Your task to perform on an android device: change the clock style Image 0: 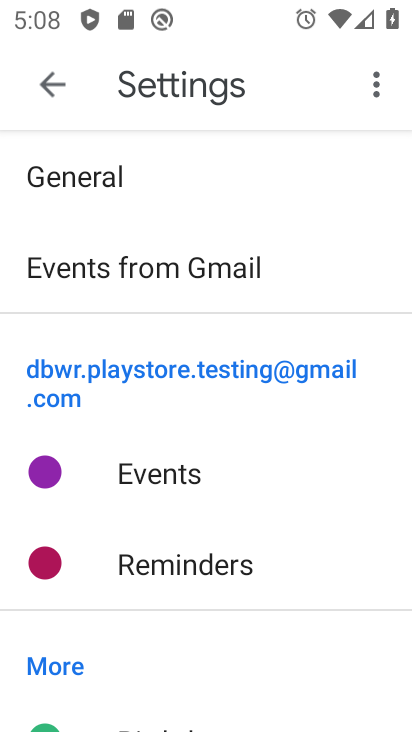
Step 0: press back button
Your task to perform on an android device: change the clock style Image 1: 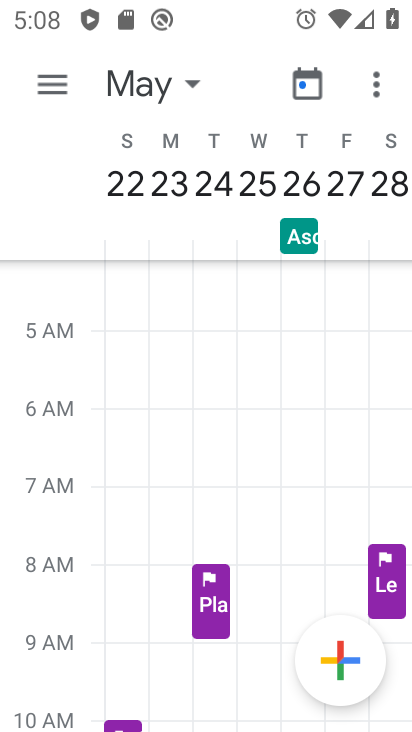
Step 1: press back button
Your task to perform on an android device: change the clock style Image 2: 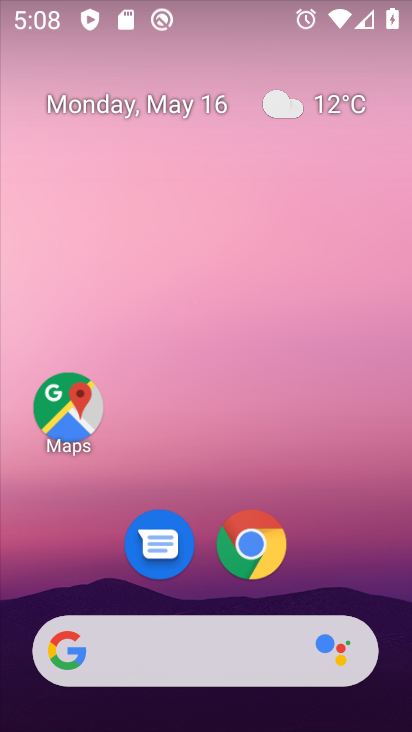
Step 2: drag from (332, 553) to (290, 172)
Your task to perform on an android device: change the clock style Image 3: 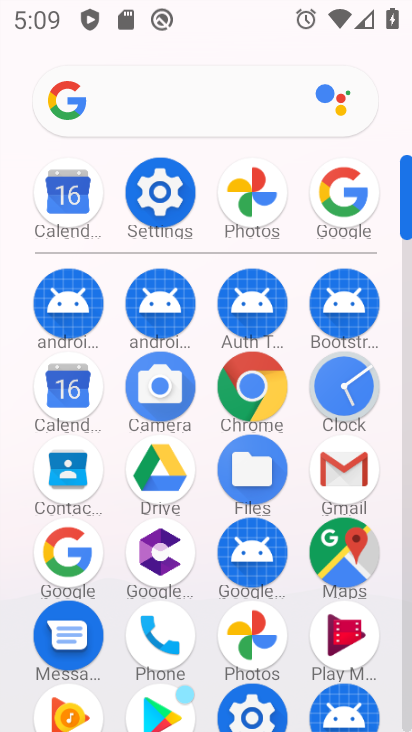
Step 3: click (345, 385)
Your task to perform on an android device: change the clock style Image 4: 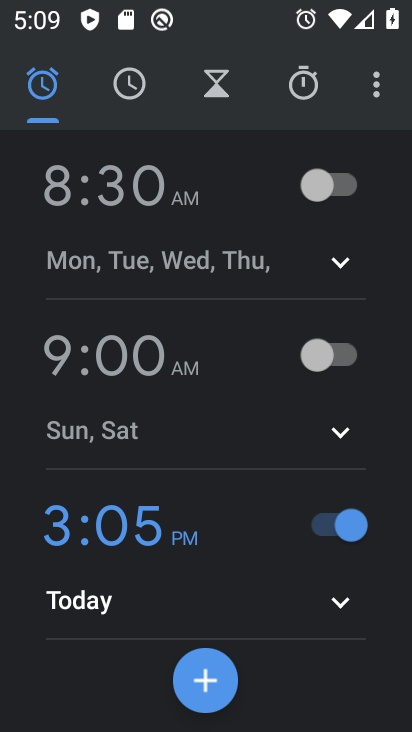
Step 4: click (375, 81)
Your task to perform on an android device: change the clock style Image 5: 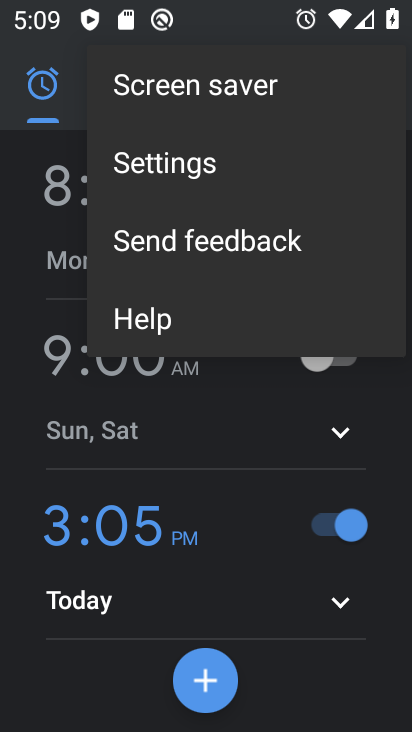
Step 5: click (192, 163)
Your task to perform on an android device: change the clock style Image 6: 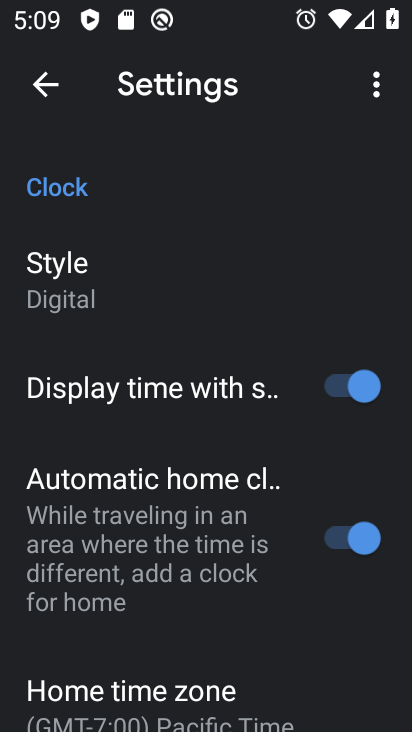
Step 6: click (77, 284)
Your task to perform on an android device: change the clock style Image 7: 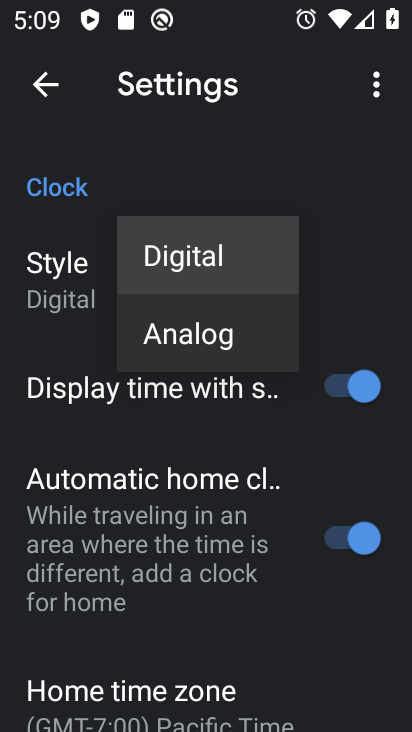
Step 7: click (220, 336)
Your task to perform on an android device: change the clock style Image 8: 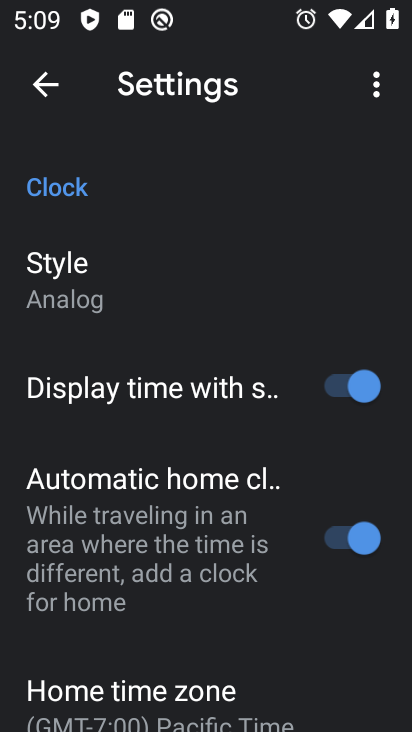
Step 8: task complete